Your task to perform on an android device: Go to Reddit.com Image 0: 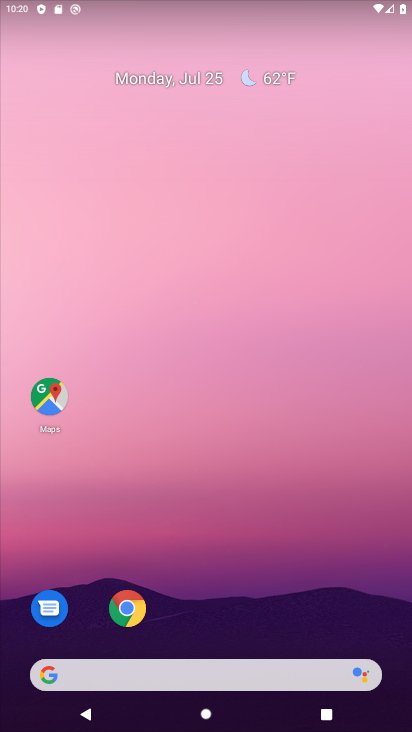
Step 0: drag from (211, 611) to (157, 182)
Your task to perform on an android device: Go to Reddit.com Image 1: 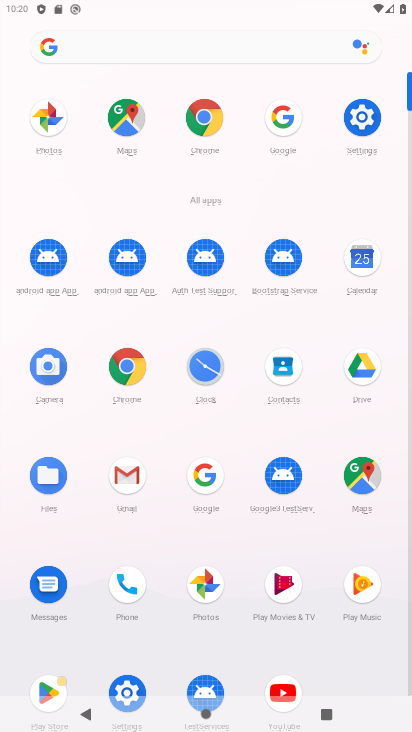
Step 1: click (201, 474)
Your task to perform on an android device: Go to Reddit.com Image 2: 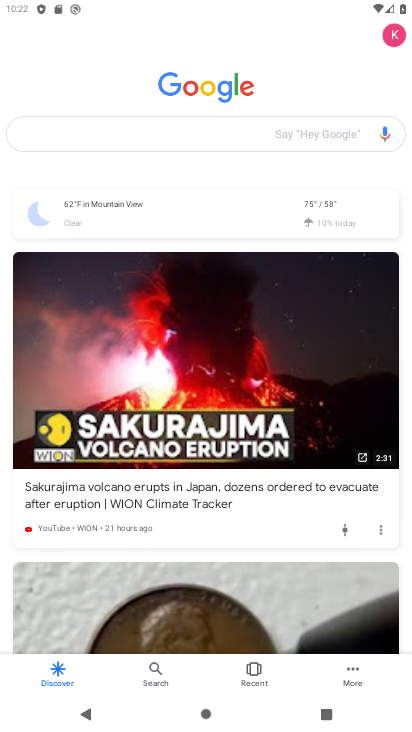
Step 2: click (46, 136)
Your task to perform on an android device: Go to Reddit.com Image 3: 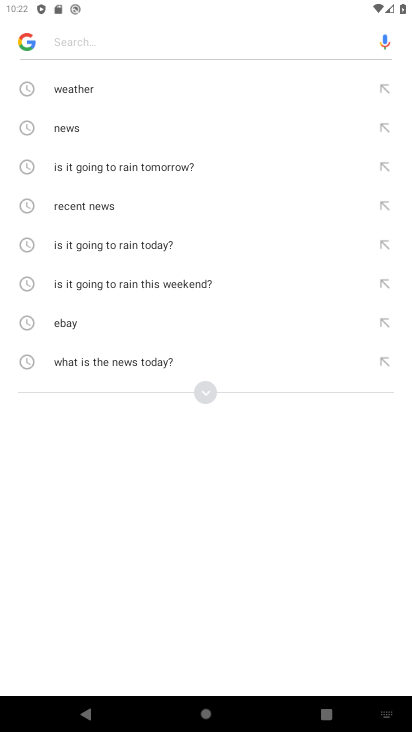
Step 3: click (208, 393)
Your task to perform on an android device: Go to Reddit.com Image 4: 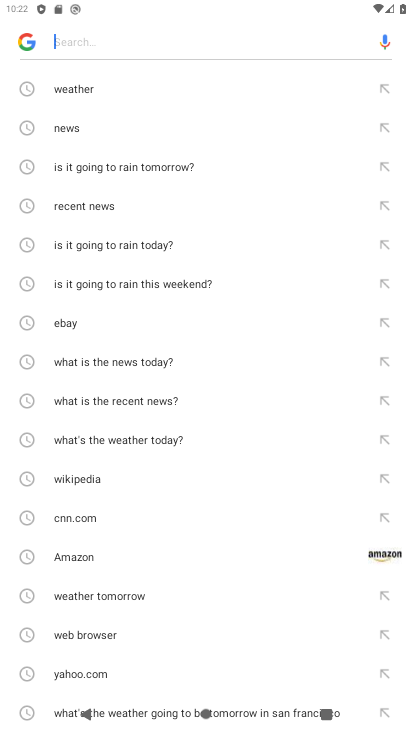
Step 4: drag from (97, 666) to (101, 269)
Your task to perform on an android device: Go to Reddit.com Image 5: 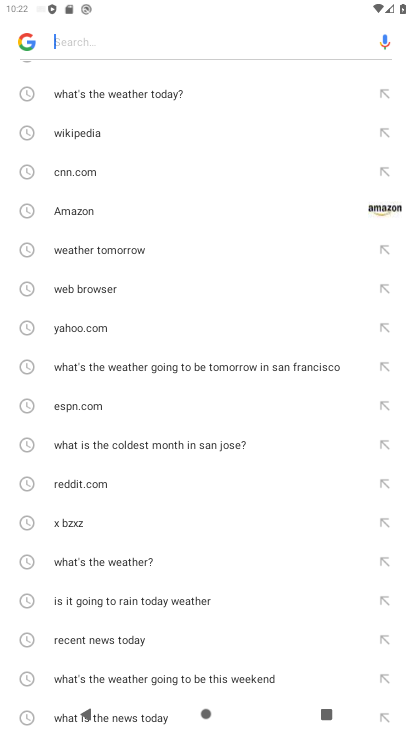
Step 5: click (71, 484)
Your task to perform on an android device: Go to Reddit.com Image 6: 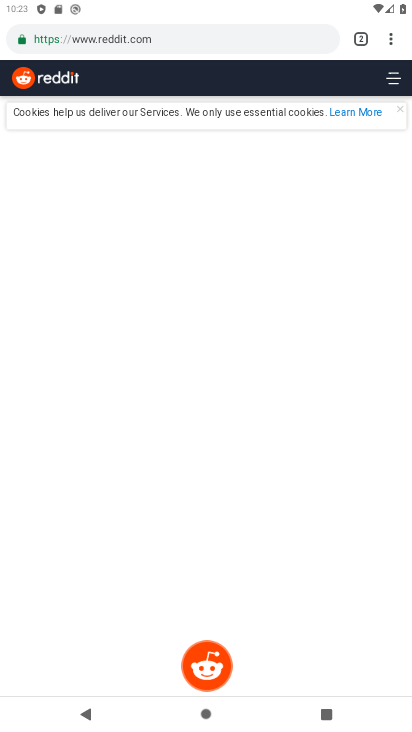
Step 6: task complete